Your task to perform on an android device: Set the phone to "Do not disturb". Image 0: 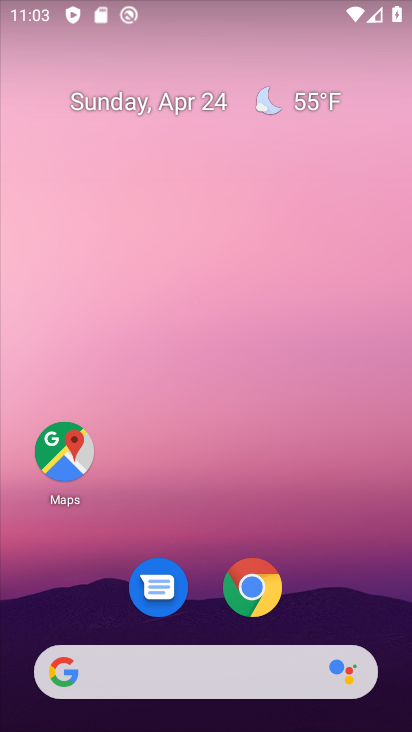
Step 0: drag from (248, 33) to (328, 460)
Your task to perform on an android device: Set the phone to "Do not disturb". Image 1: 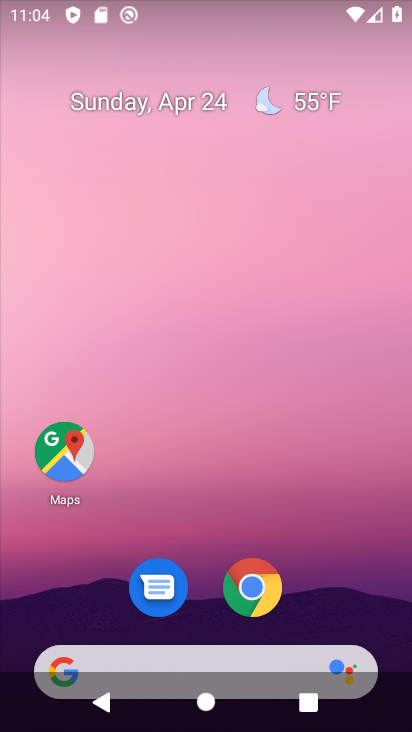
Step 1: drag from (287, 15) to (269, 461)
Your task to perform on an android device: Set the phone to "Do not disturb". Image 2: 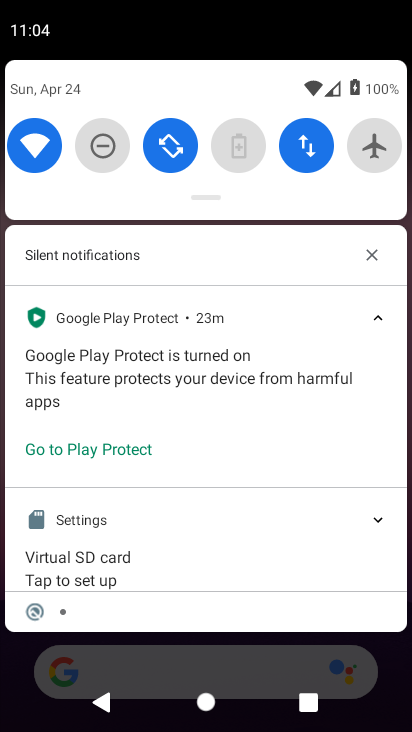
Step 2: click (108, 141)
Your task to perform on an android device: Set the phone to "Do not disturb". Image 3: 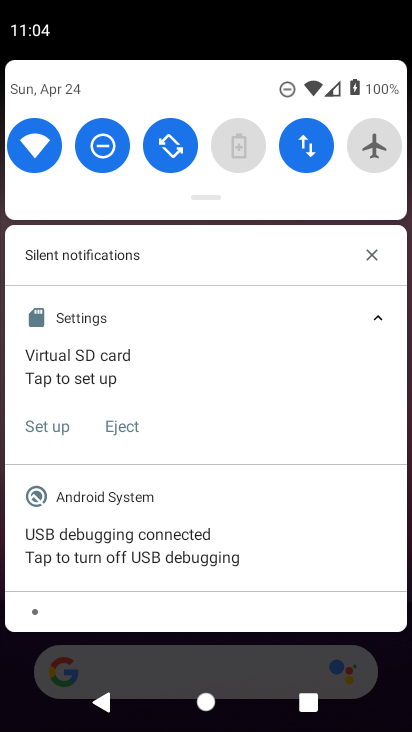
Step 3: task complete